Your task to perform on an android device: open device folders in google photos Image 0: 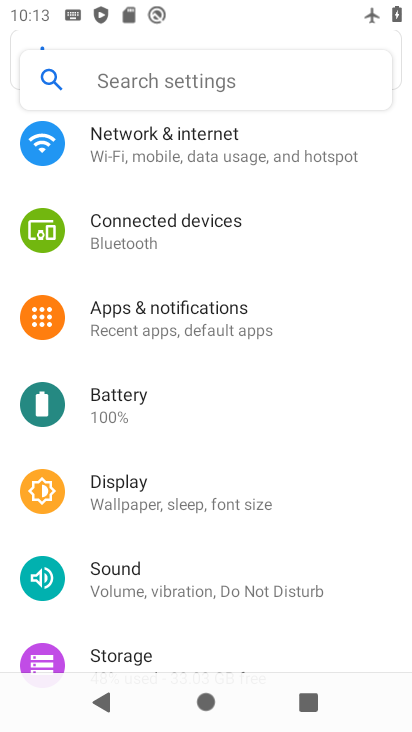
Step 0: press back button
Your task to perform on an android device: open device folders in google photos Image 1: 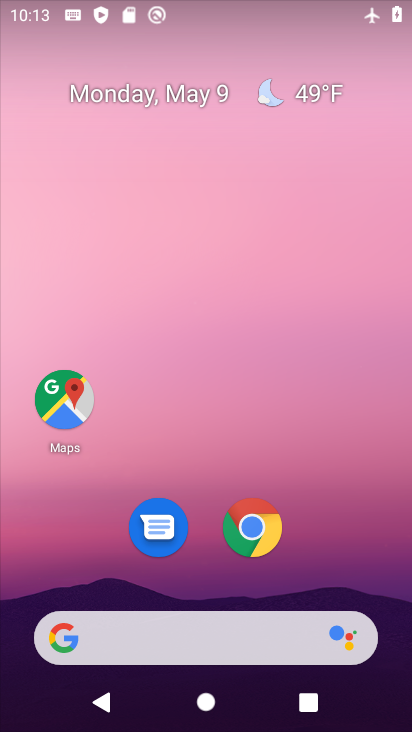
Step 1: drag from (320, 549) to (281, 47)
Your task to perform on an android device: open device folders in google photos Image 2: 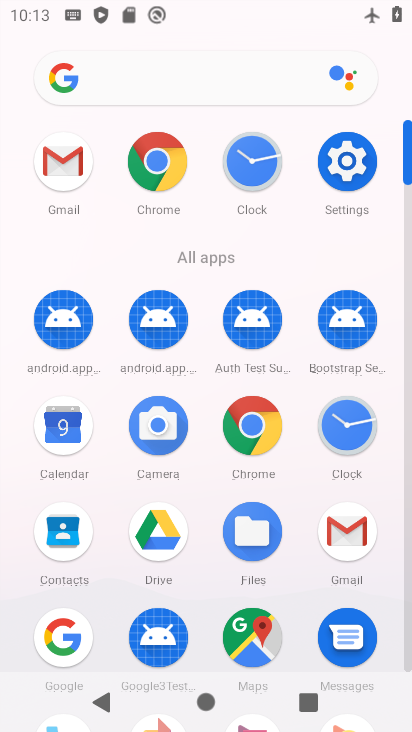
Step 2: drag from (200, 579) to (201, 323)
Your task to perform on an android device: open device folders in google photos Image 3: 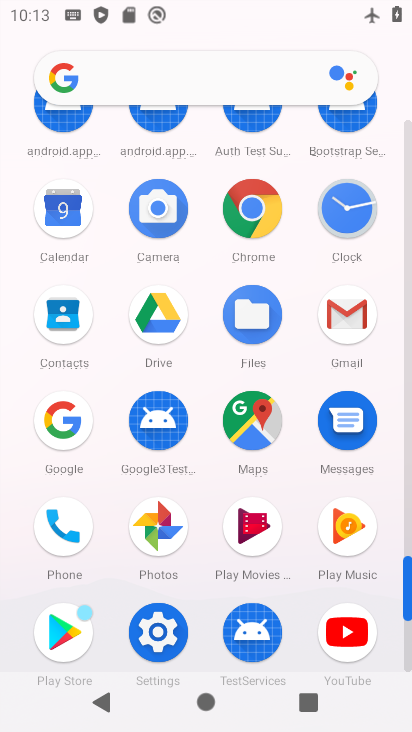
Step 3: click (157, 524)
Your task to perform on an android device: open device folders in google photos Image 4: 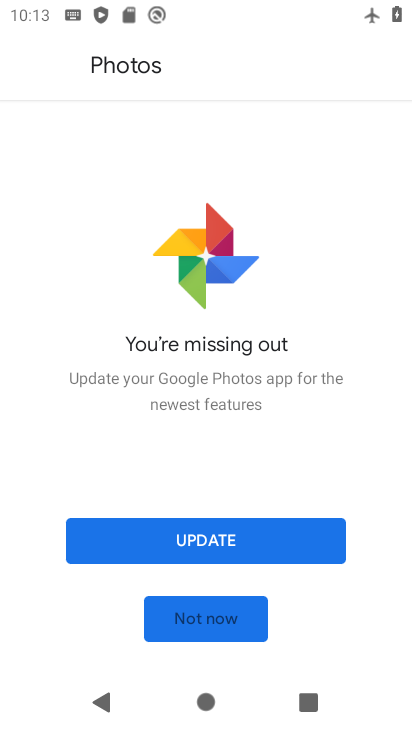
Step 4: click (212, 541)
Your task to perform on an android device: open device folders in google photos Image 5: 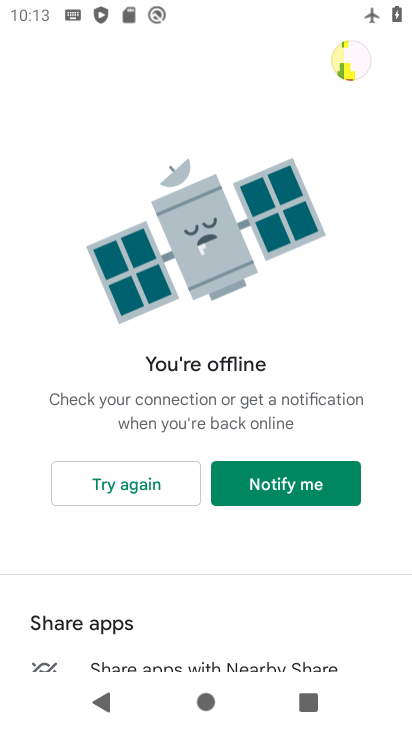
Step 5: click (159, 484)
Your task to perform on an android device: open device folders in google photos Image 6: 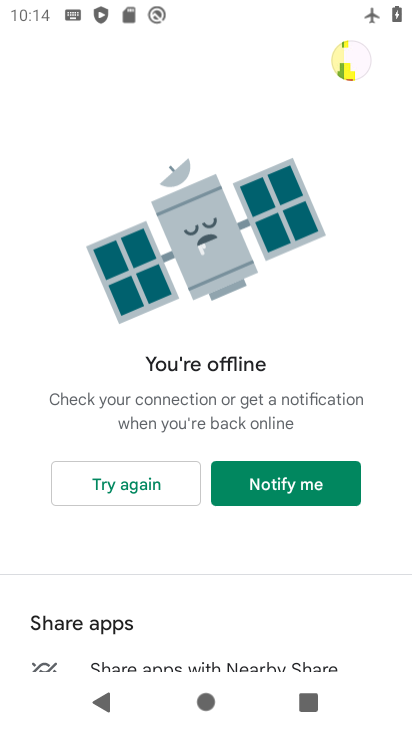
Step 6: task complete